Your task to perform on an android device: uninstall "Expedia: Hotels, Flights & Car" Image 0: 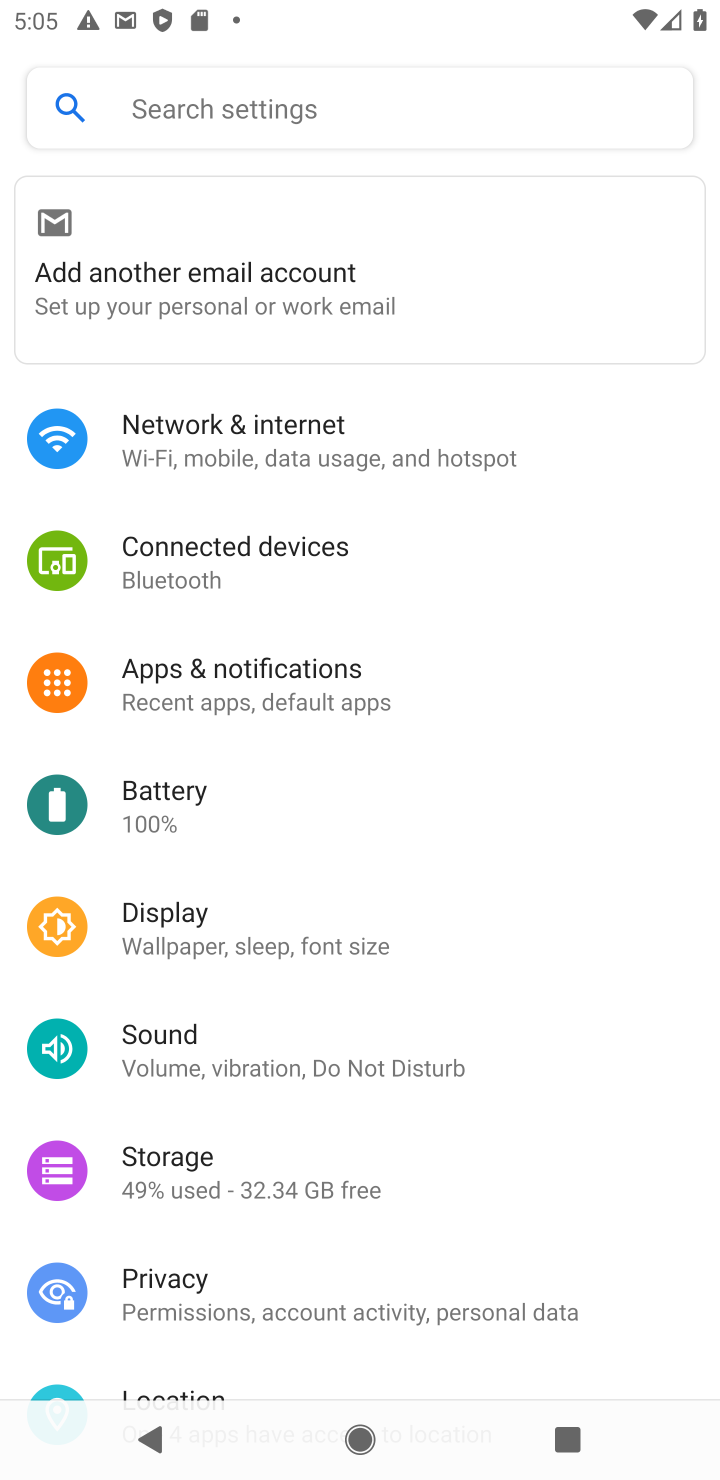
Step 0: press home button
Your task to perform on an android device: uninstall "Expedia: Hotels, Flights & Car" Image 1: 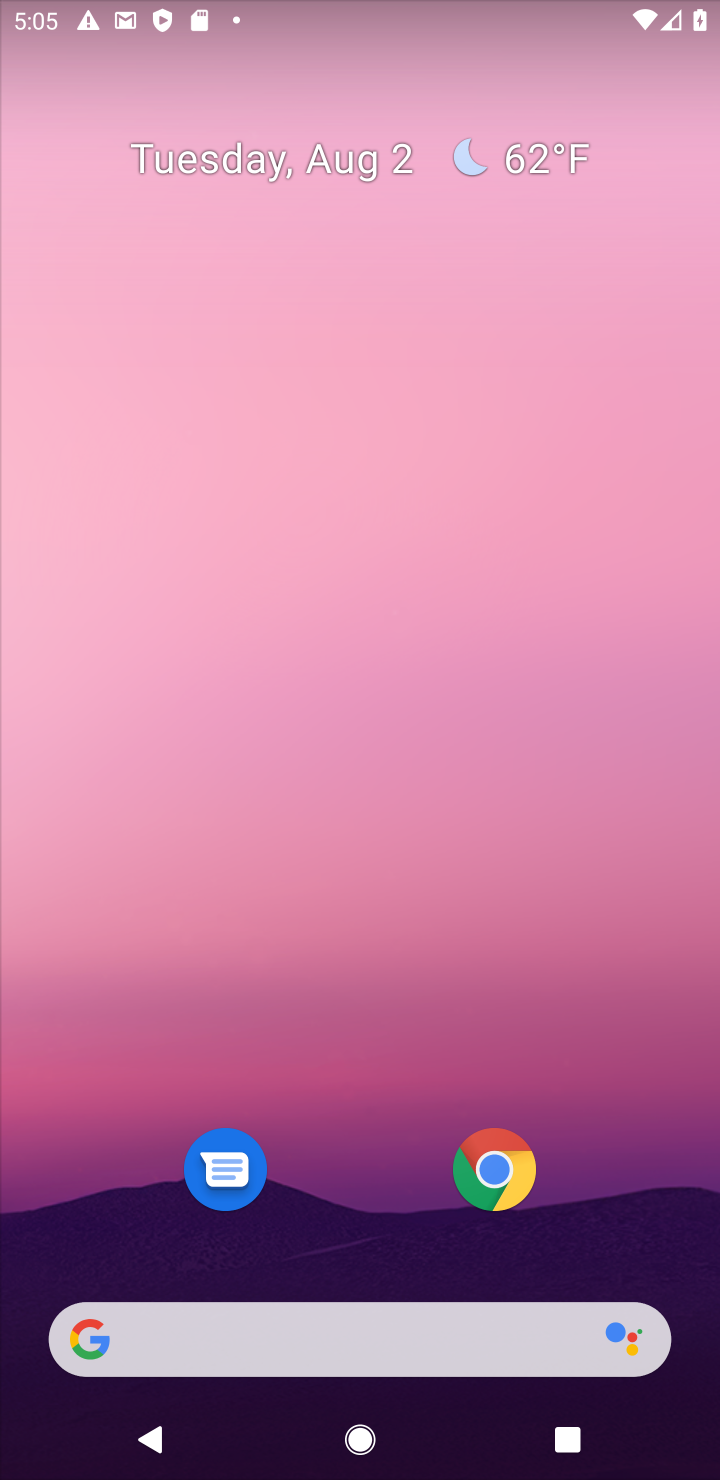
Step 1: drag from (615, 1029) to (425, 10)
Your task to perform on an android device: uninstall "Expedia: Hotels, Flights & Car" Image 2: 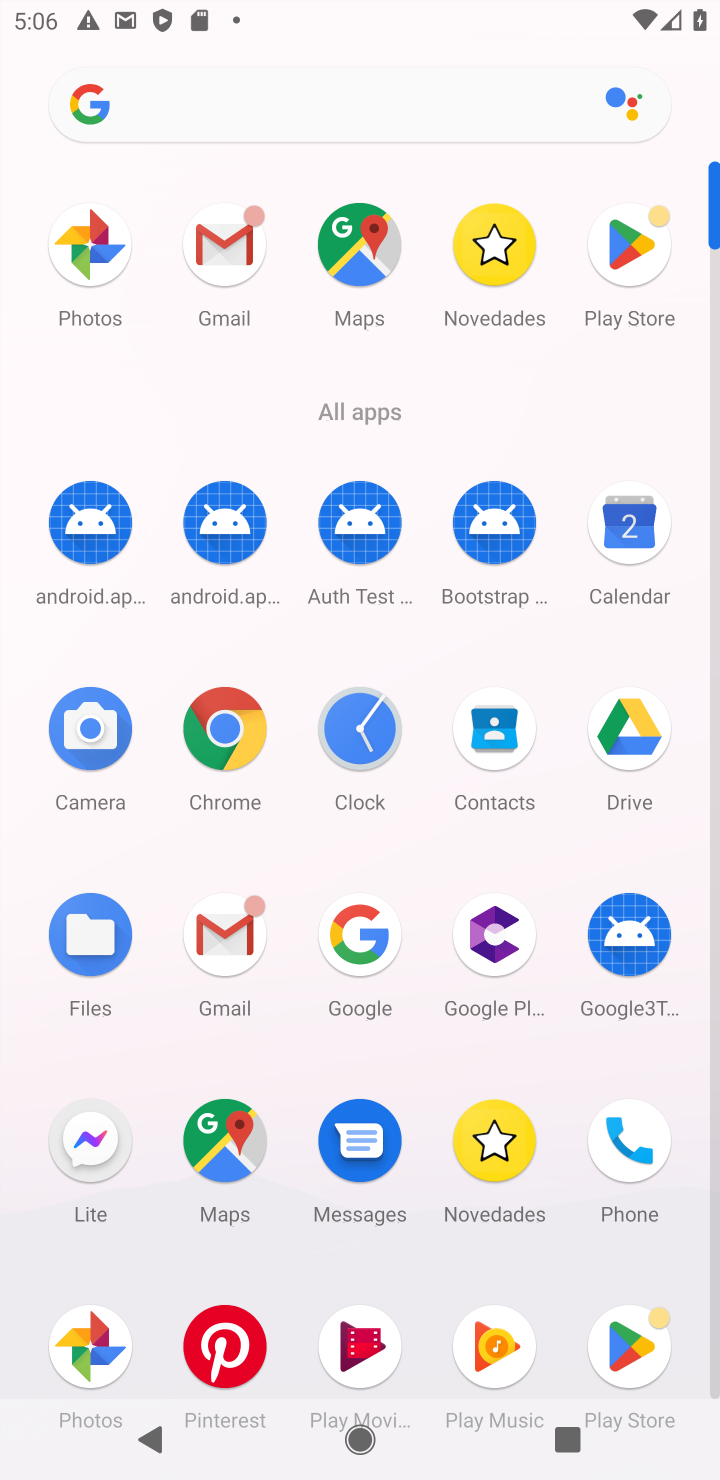
Step 2: click (619, 1330)
Your task to perform on an android device: uninstall "Expedia: Hotels, Flights & Car" Image 3: 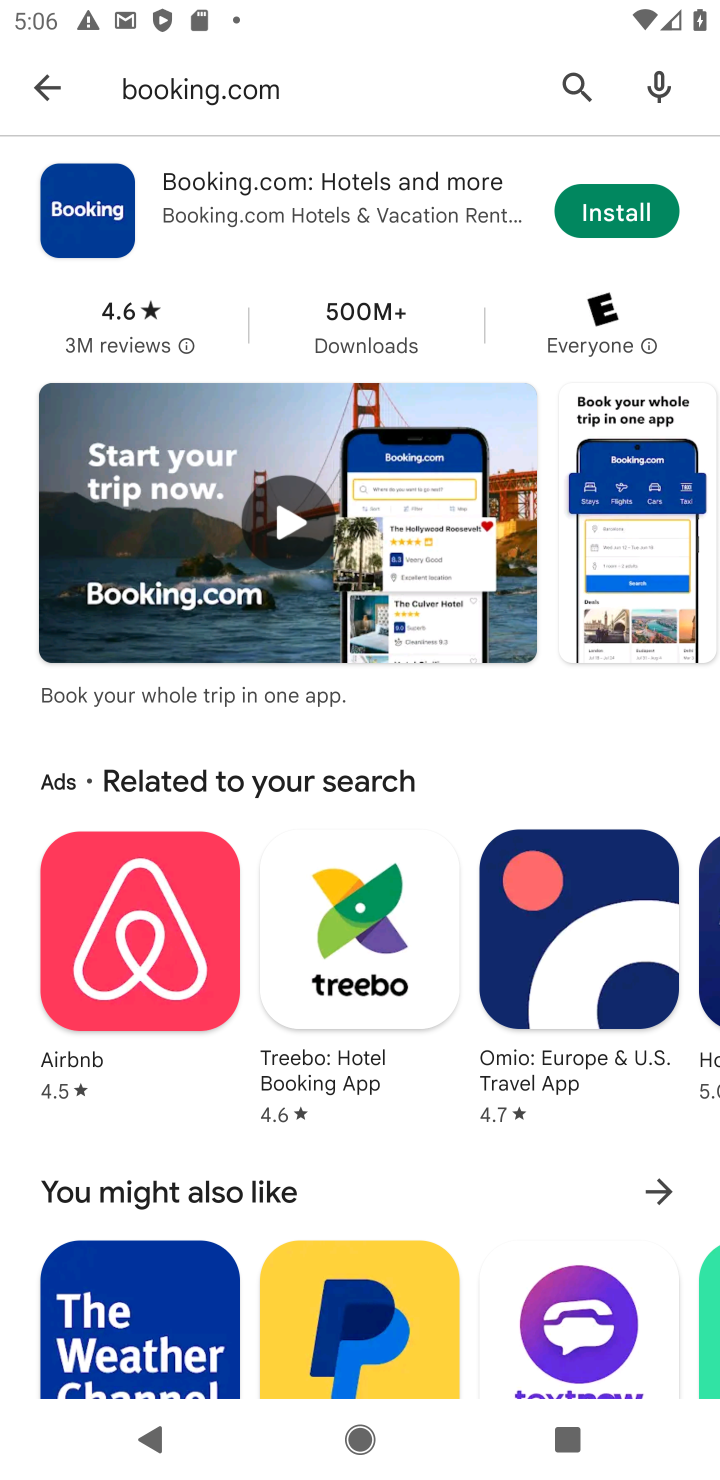
Step 3: click (575, 75)
Your task to perform on an android device: uninstall "Expedia: Hotels, Flights & Car" Image 4: 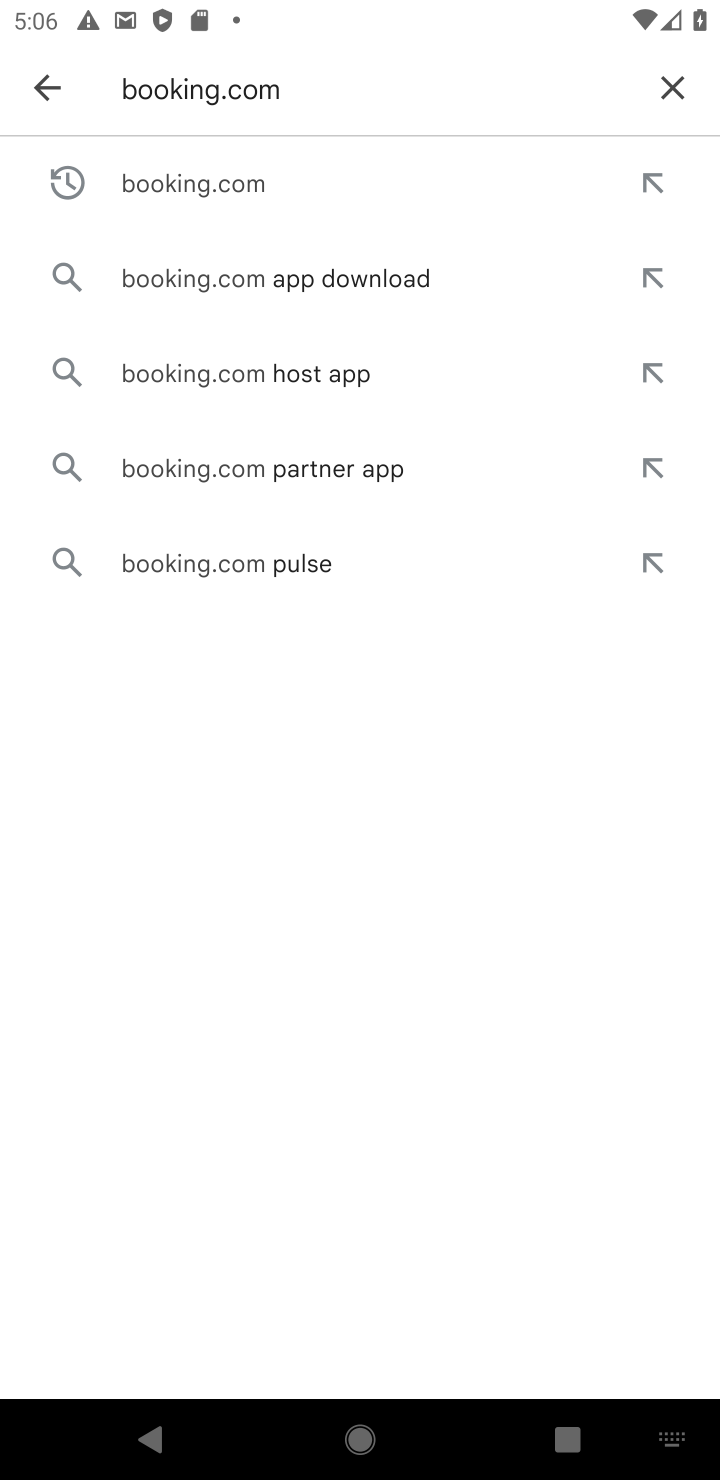
Step 4: click (673, 90)
Your task to perform on an android device: uninstall "Expedia: Hotels, Flights & Car" Image 5: 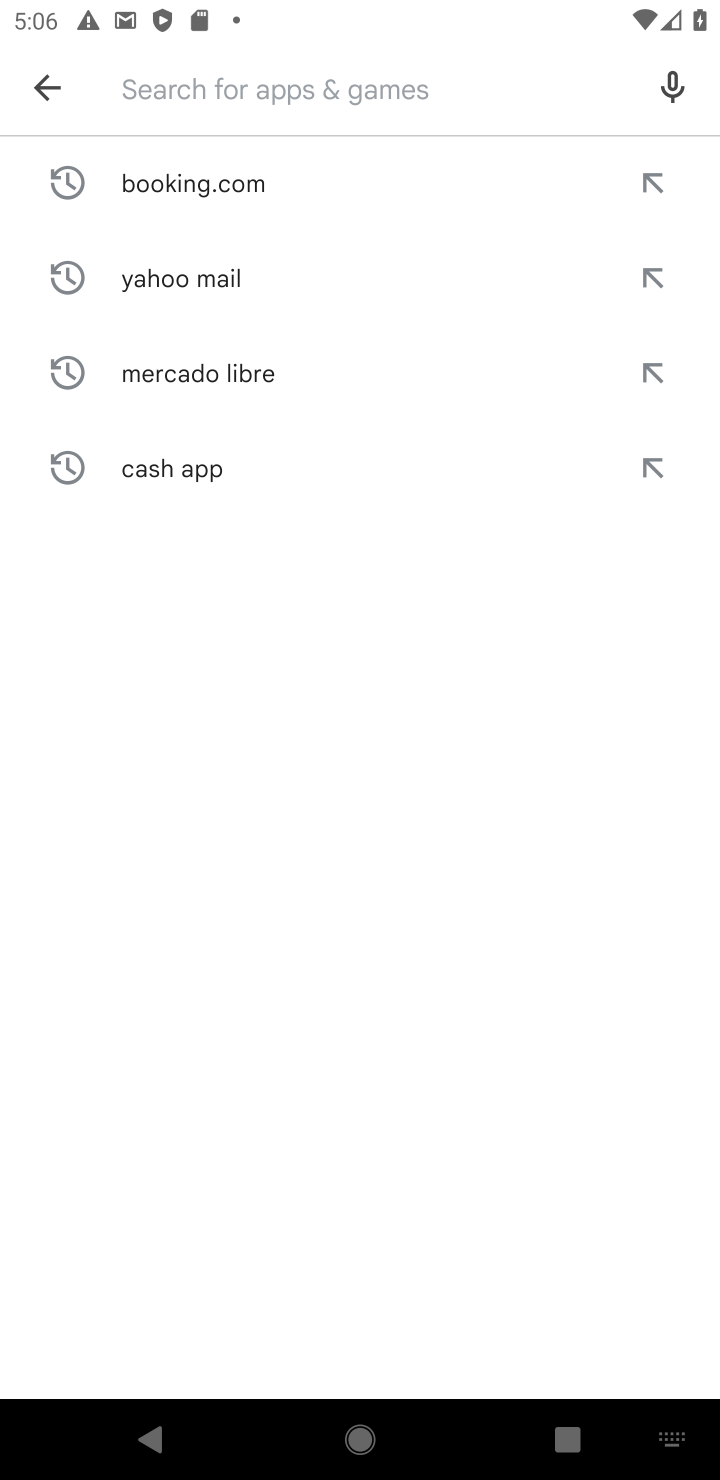
Step 5: type "expedia"
Your task to perform on an android device: uninstall "Expedia: Hotels, Flights & Car" Image 6: 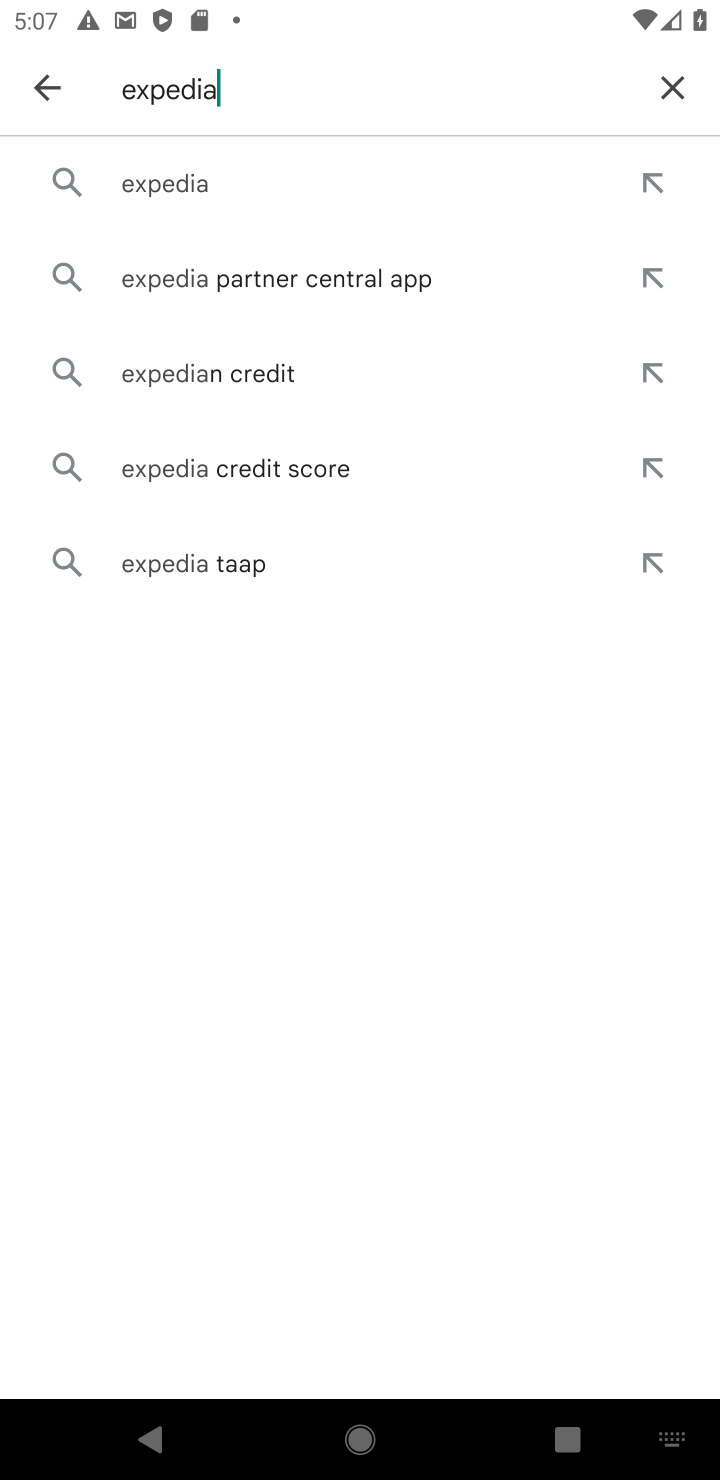
Step 6: click (444, 152)
Your task to perform on an android device: uninstall "Expedia: Hotels, Flights & Car" Image 7: 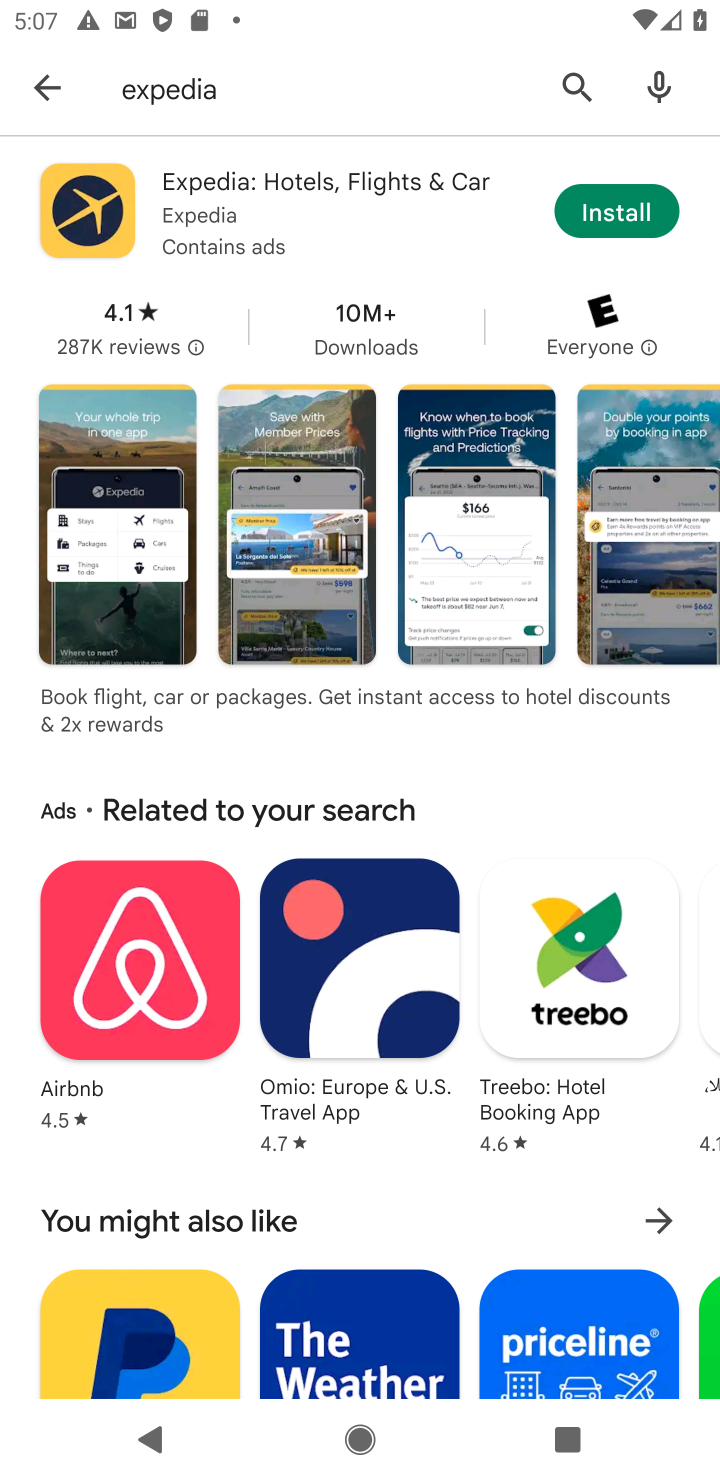
Step 7: task complete